Your task to perform on an android device: Go to Google maps Image 0: 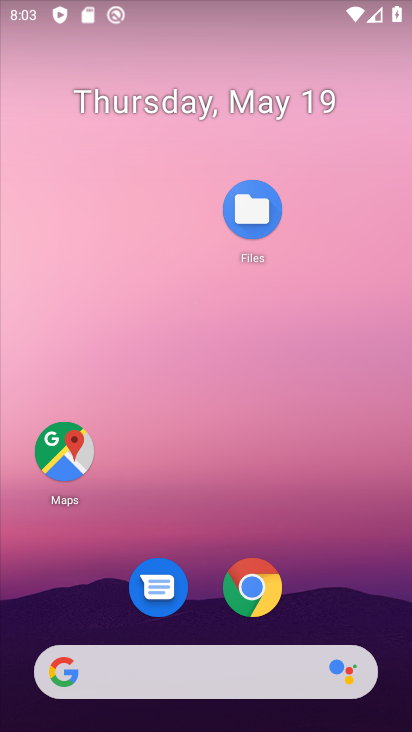
Step 0: drag from (374, 620) to (387, 206)
Your task to perform on an android device: Go to Google maps Image 1: 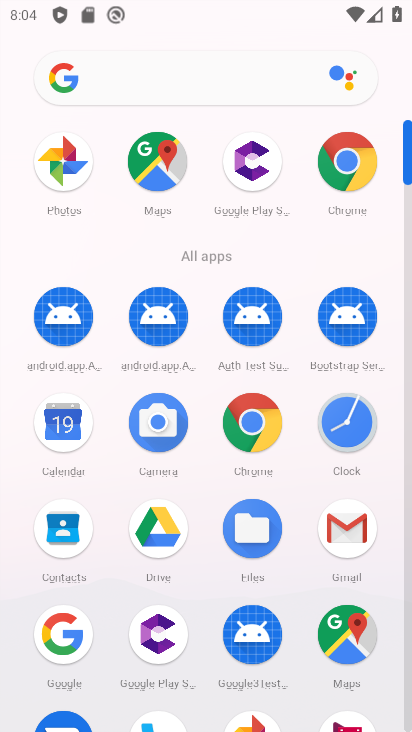
Step 1: click (358, 624)
Your task to perform on an android device: Go to Google maps Image 2: 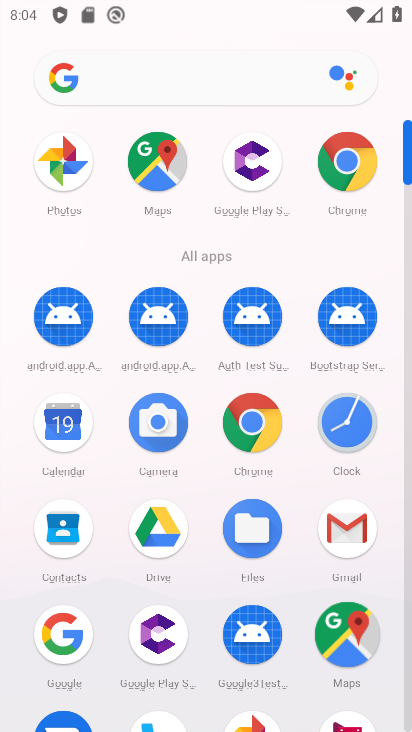
Step 2: click (358, 624)
Your task to perform on an android device: Go to Google maps Image 3: 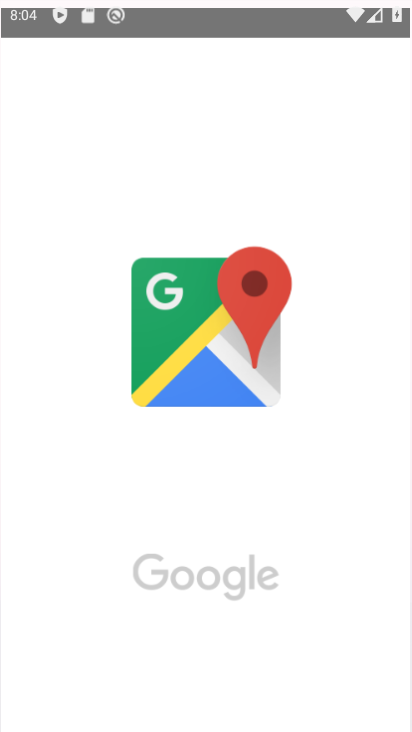
Step 3: click (358, 624)
Your task to perform on an android device: Go to Google maps Image 4: 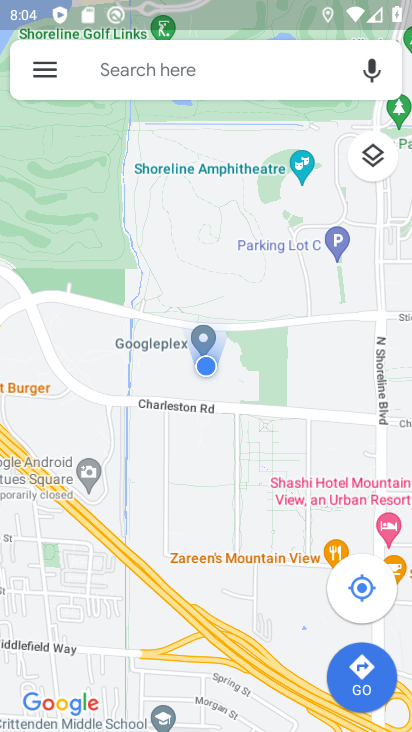
Step 4: task complete